Your task to perform on an android device: turn off smart reply in the gmail app Image 0: 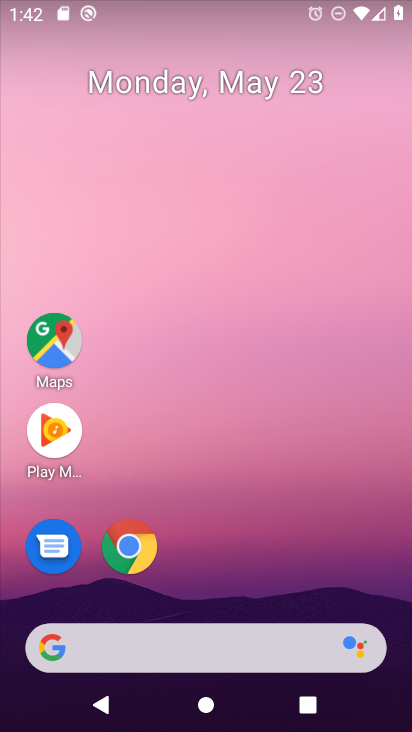
Step 0: drag from (267, 643) to (244, 150)
Your task to perform on an android device: turn off smart reply in the gmail app Image 1: 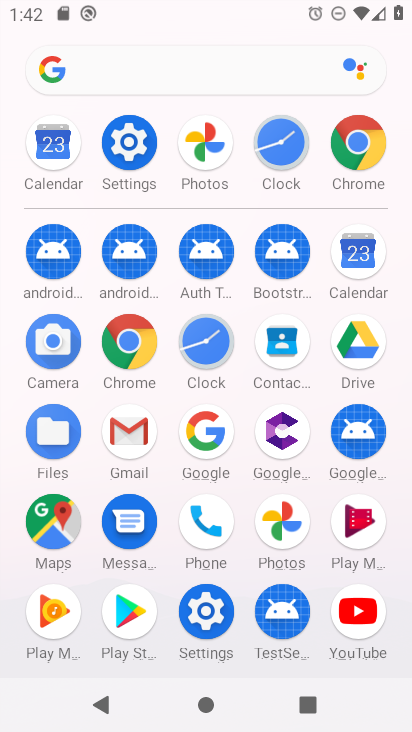
Step 1: click (138, 462)
Your task to perform on an android device: turn off smart reply in the gmail app Image 2: 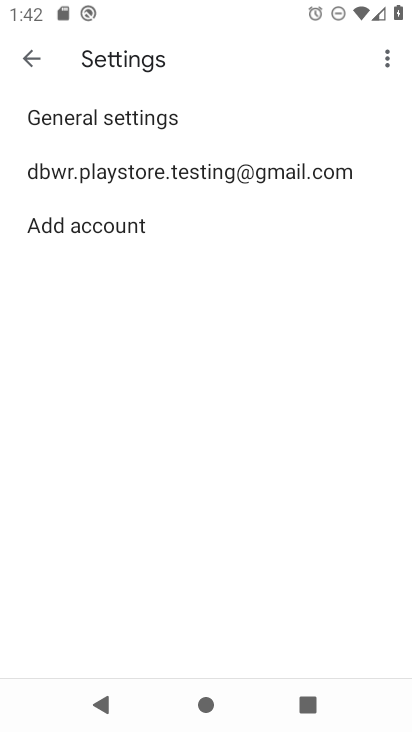
Step 2: click (184, 165)
Your task to perform on an android device: turn off smart reply in the gmail app Image 3: 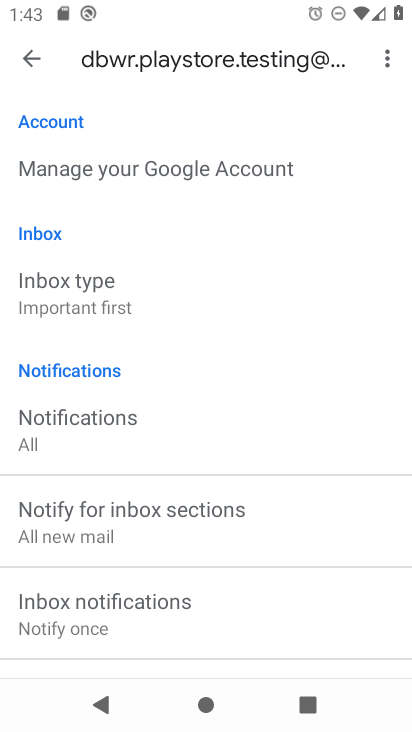
Step 3: drag from (173, 584) to (141, 49)
Your task to perform on an android device: turn off smart reply in the gmail app Image 4: 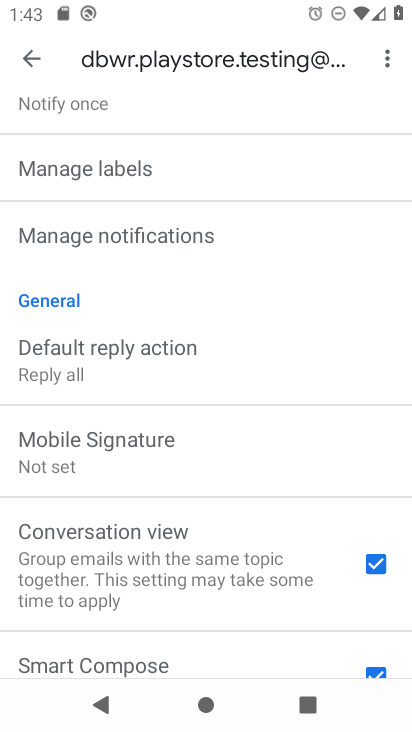
Step 4: drag from (194, 539) to (204, 159)
Your task to perform on an android device: turn off smart reply in the gmail app Image 5: 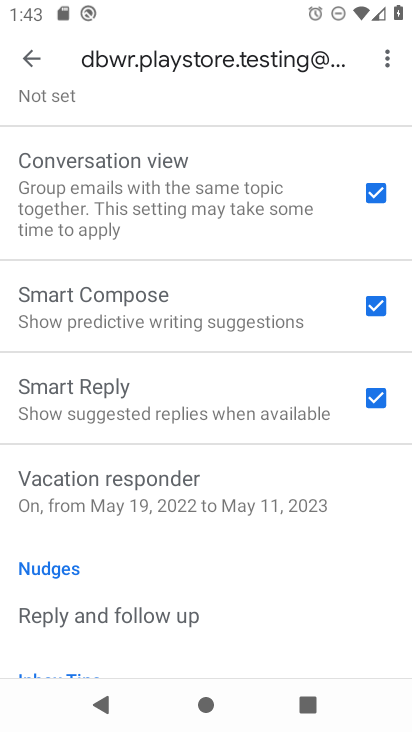
Step 5: click (376, 399)
Your task to perform on an android device: turn off smart reply in the gmail app Image 6: 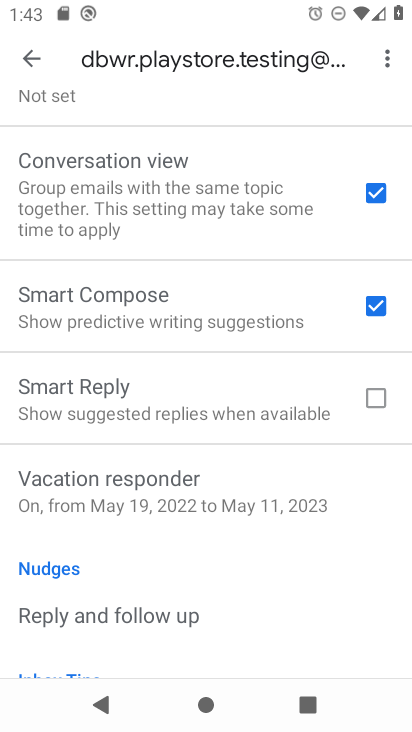
Step 6: task complete